Your task to perform on an android device: Open the stopwatch Image 0: 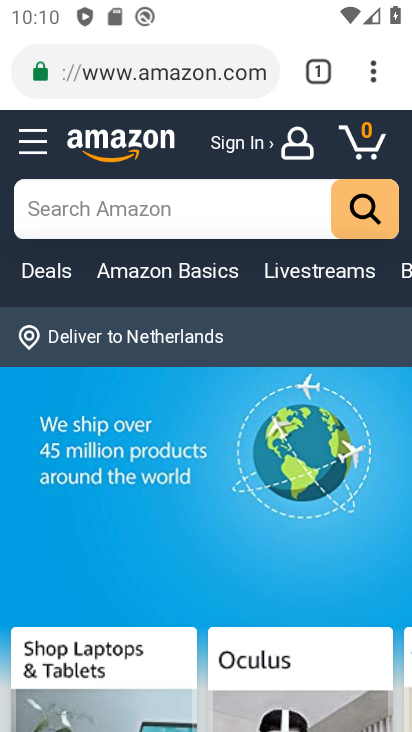
Step 0: drag from (312, 613) to (377, 565)
Your task to perform on an android device: Open the stopwatch Image 1: 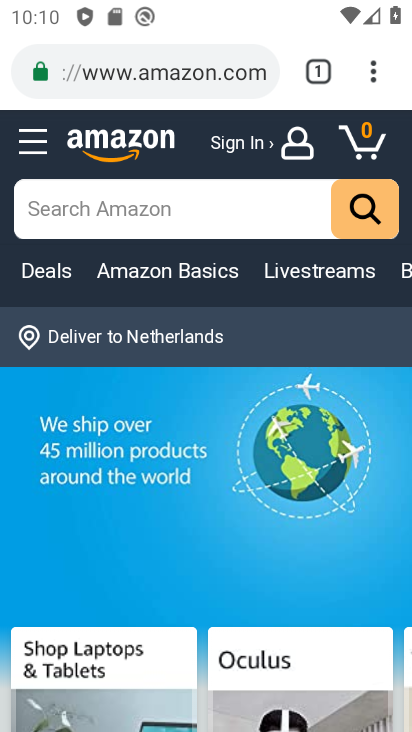
Step 1: press home button
Your task to perform on an android device: Open the stopwatch Image 2: 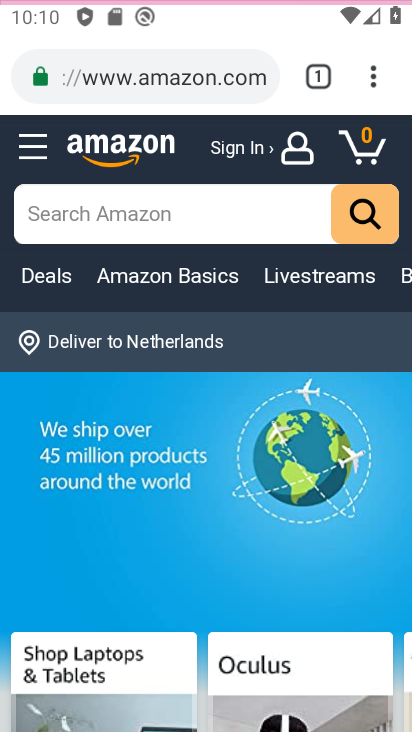
Step 2: drag from (377, 565) to (326, 462)
Your task to perform on an android device: Open the stopwatch Image 3: 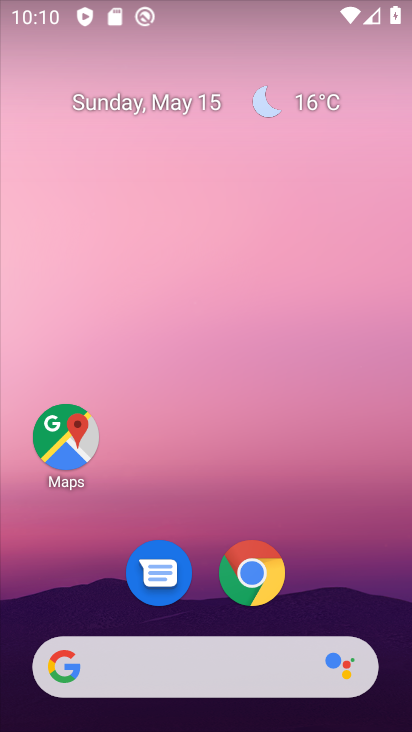
Step 3: drag from (311, 618) to (254, 180)
Your task to perform on an android device: Open the stopwatch Image 4: 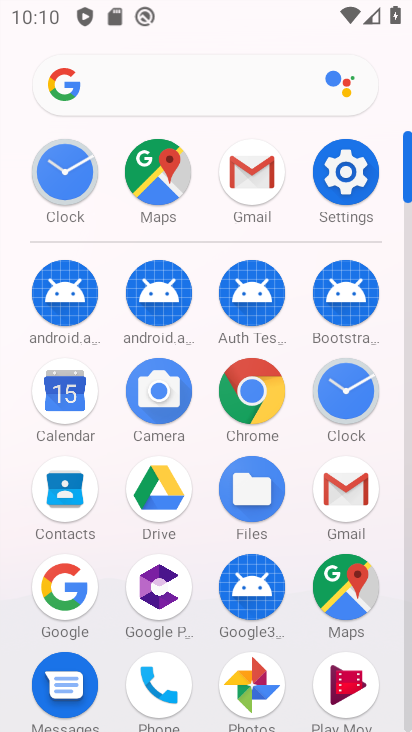
Step 4: click (347, 399)
Your task to perform on an android device: Open the stopwatch Image 5: 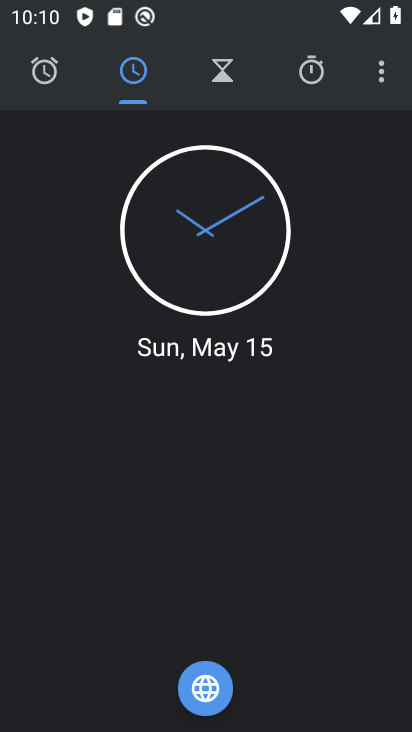
Step 5: click (299, 92)
Your task to perform on an android device: Open the stopwatch Image 6: 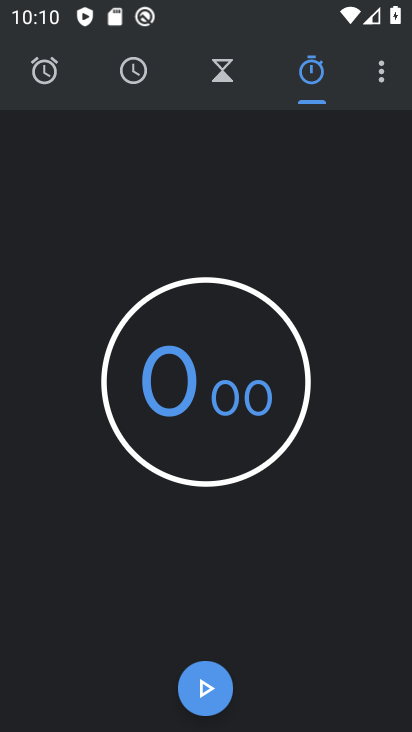
Step 6: click (211, 701)
Your task to perform on an android device: Open the stopwatch Image 7: 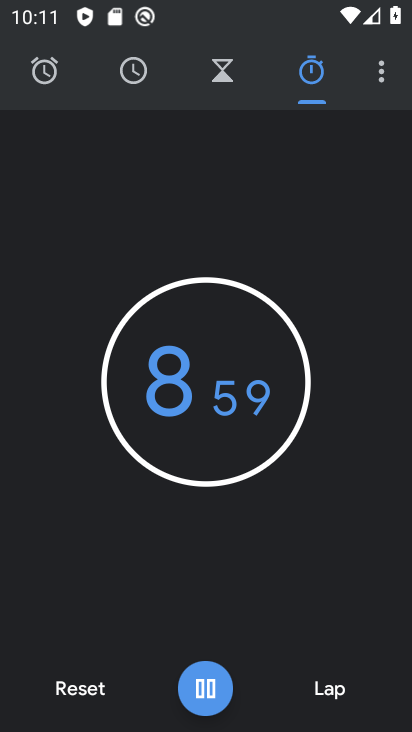
Step 7: click (203, 689)
Your task to perform on an android device: Open the stopwatch Image 8: 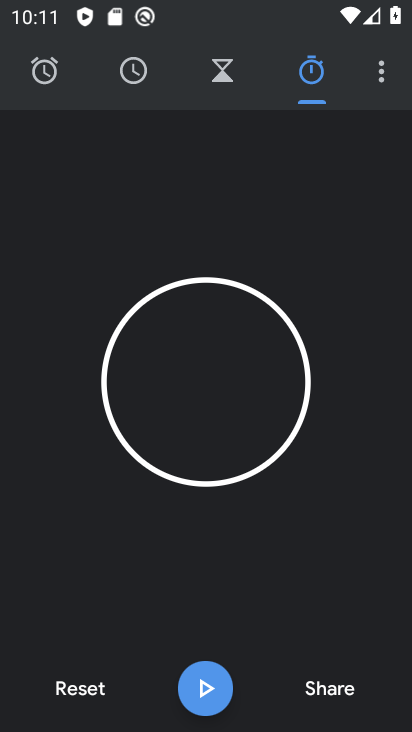
Step 8: click (203, 689)
Your task to perform on an android device: Open the stopwatch Image 9: 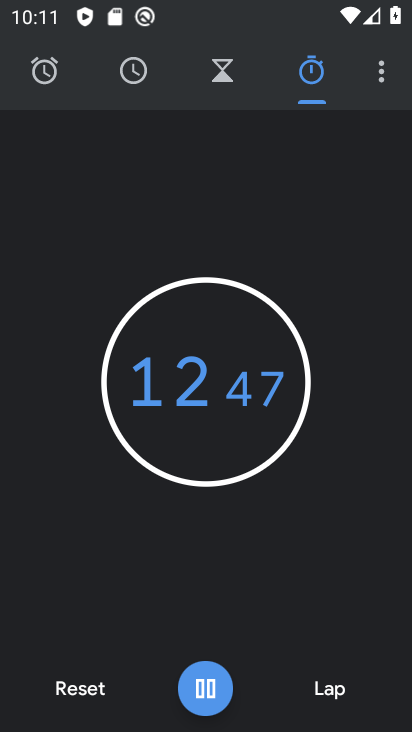
Step 9: click (219, 688)
Your task to perform on an android device: Open the stopwatch Image 10: 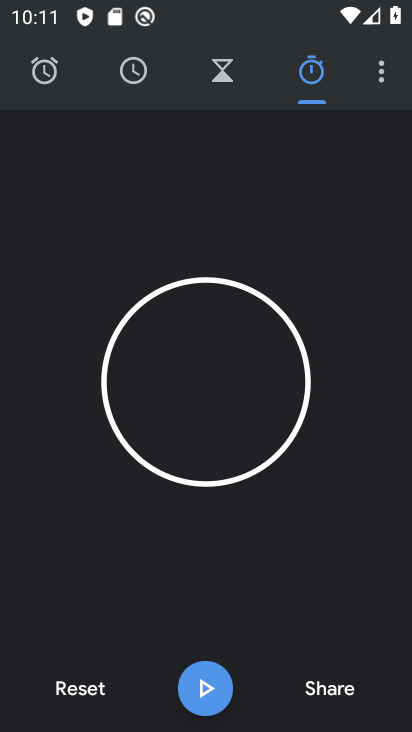
Step 10: task complete